Your task to perform on an android device: change the clock style Image 0: 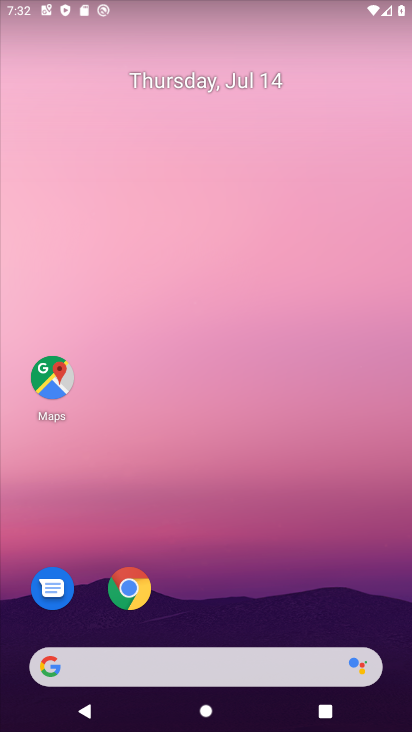
Step 0: drag from (381, 630) to (254, 20)
Your task to perform on an android device: change the clock style Image 1: 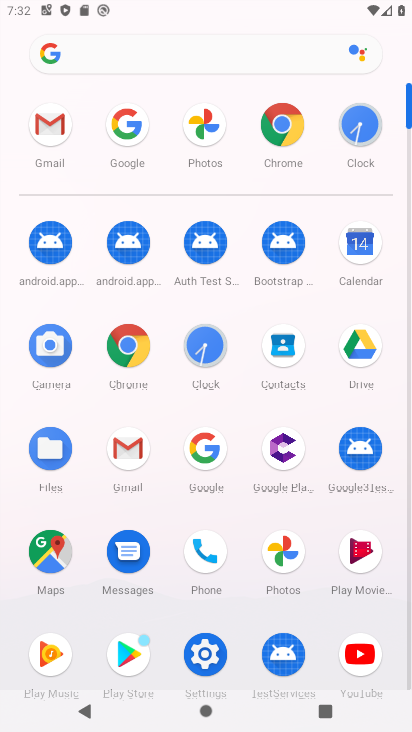
Step 1: click (357, 115)
Your task to perform on an android device: change the clock style Image 2: 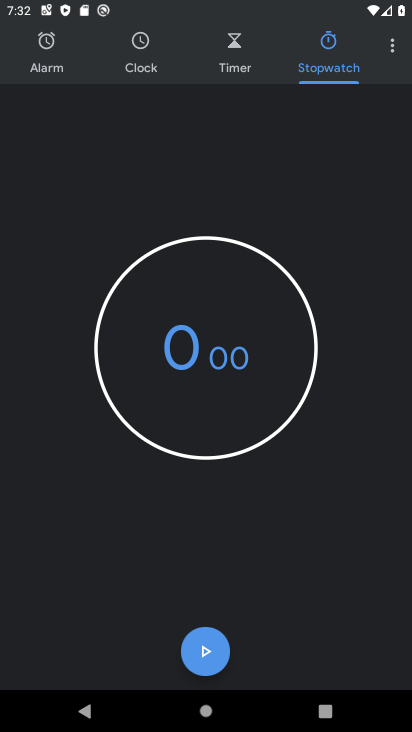
Step 2: click (388, 49)
Your task to perform on an android device: change the clock style Image 3: 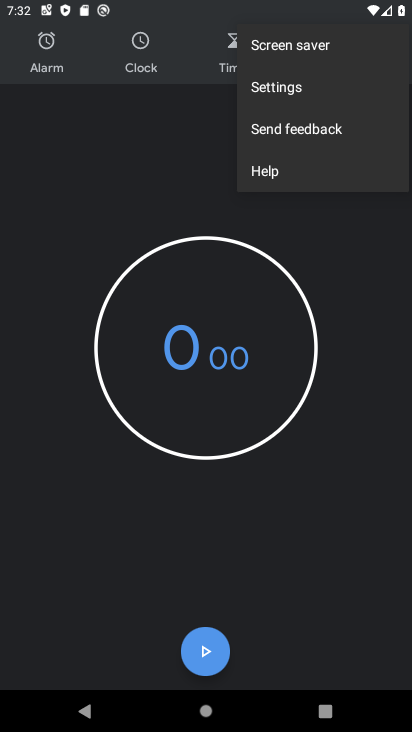
Step 3: click (330, 85)
Your task to perform on an android device: change the clock style Image 4: 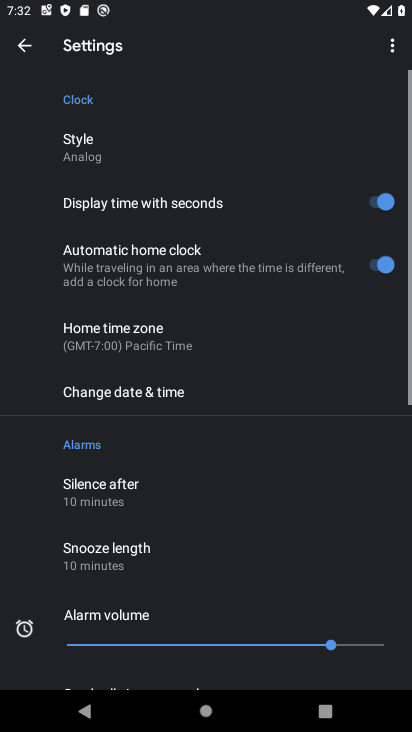
Step 4: click (100, 143)
Your task to perform on an android device: change the clock style Image 5: 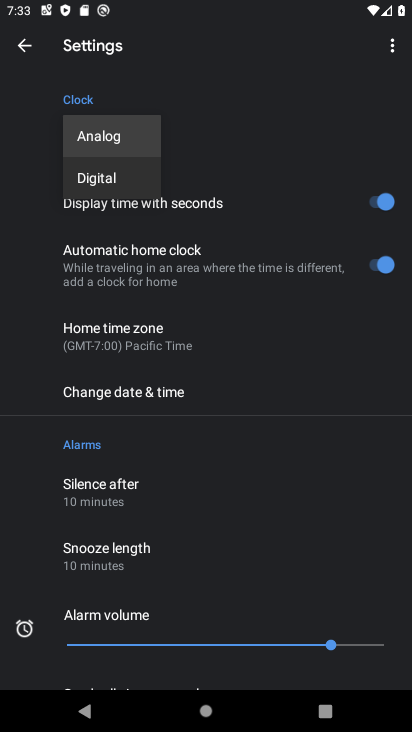
Step 5: click (96, 172)
Your task to perform on an android device: change the clock style Image 6: 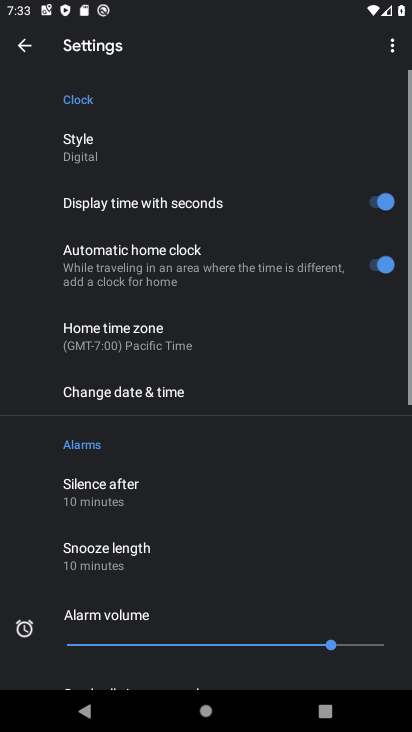
Step 6: task complete